Your task to perform on an android device: Open calendar and show me the second week of next month Image 0: 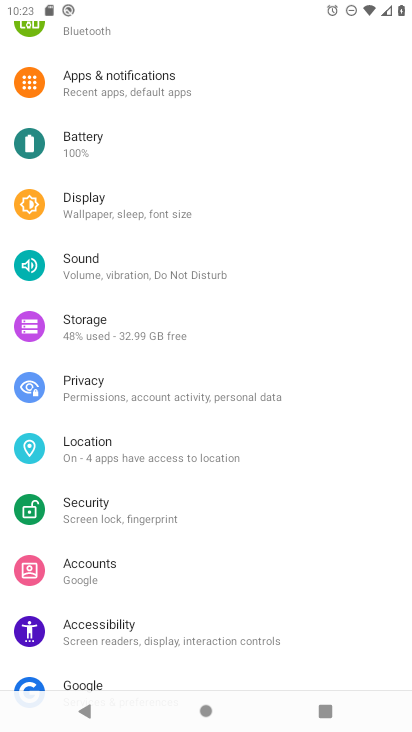
Step 0: press home button
Your task to perform on an android device: Open calendar and show me the second week of next month Image 1: 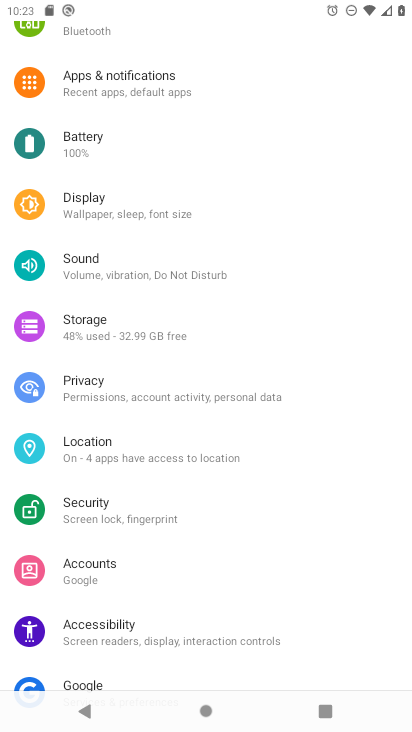
Step 1: press home button
Your task to perform on an android device: Open calendar and show me the second week of next month Image 2: 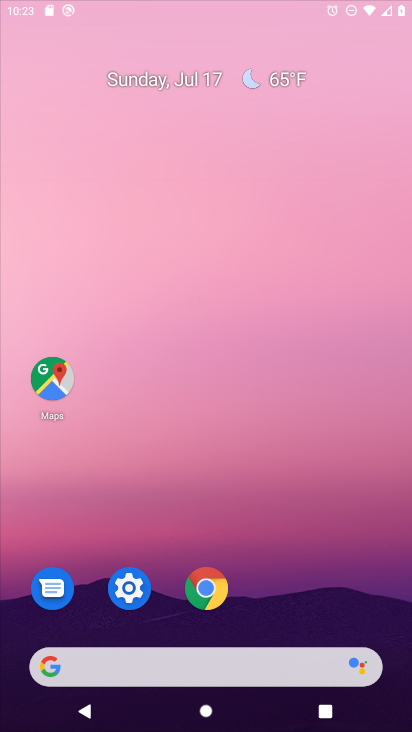
Step 2: press home button
Your task to perform on an android device: Open calendar and show me the second week of next month Image 3: 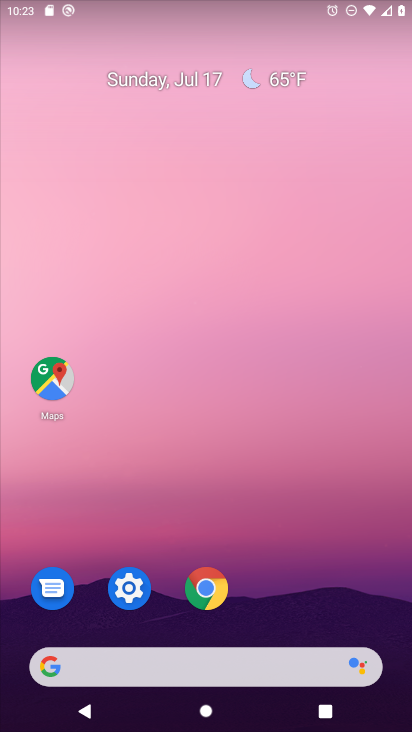
Step 3: drag from (302, 647) to (208, 209)
Your task to perform on an android device: Open calendar and show me the second week of next month Image 4: 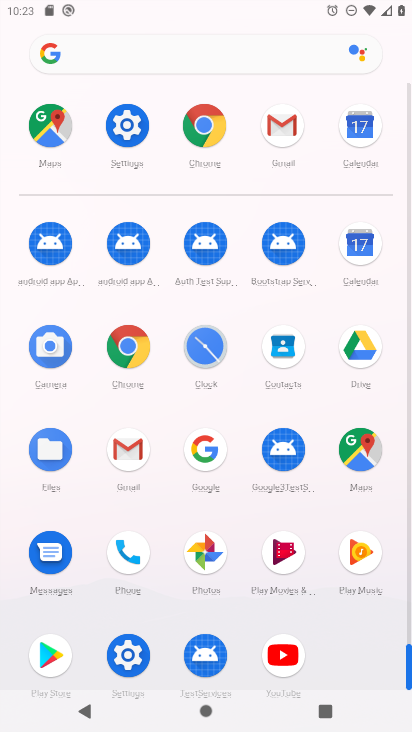
Step 4: click (356, 248)
Your task to perform on an android device: Open calendar and show me the second week of next month Image 5: 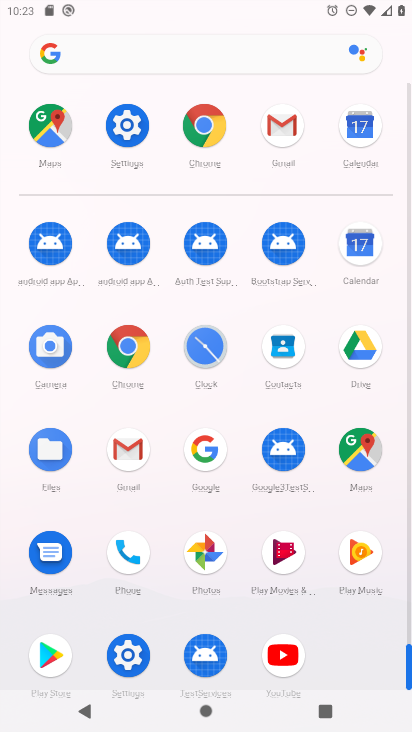
Step 5: click (357, 248)
Your task to perform on an android device: Open calendar and show me the second week of next month Image 6: 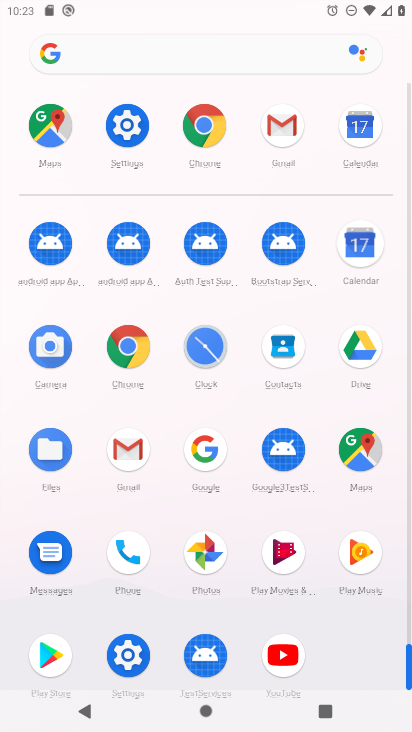
Step 6: click (357, 248)
Your task to perform on an android device: Open calendar and show me the second week of next month Image 7: 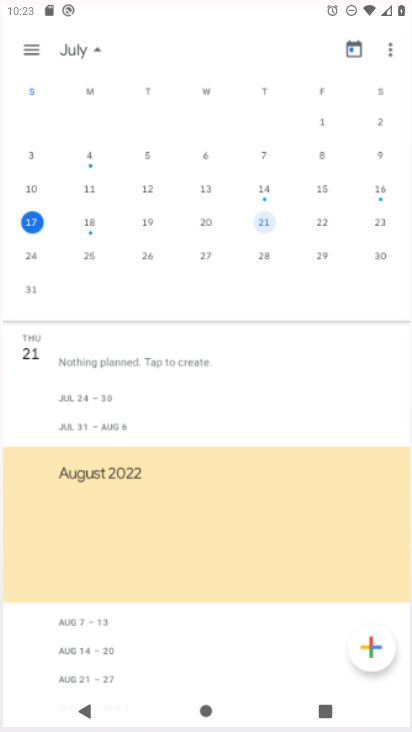
Step 7: click (357, 248)
Your task to perform on an android device: Open calendar and show me the second week of next month Image 8: 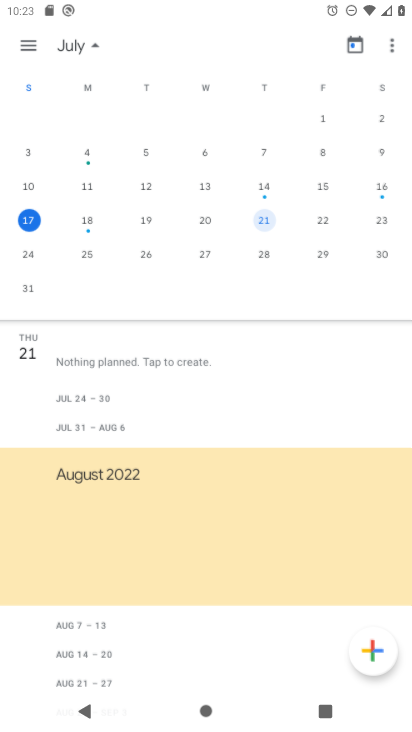
Step 8: click (358, 248)
Your task to perform on an android device: Open calendar and show me the second week of next month Image 9: 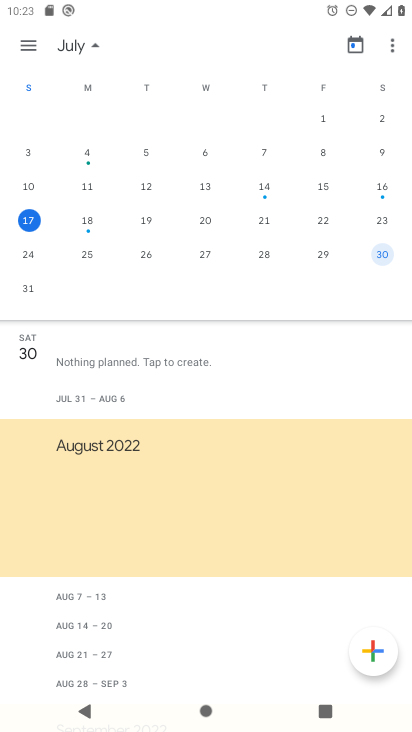
Step 9: click (361, 246)
Your task to perform on an android device: Open calendar and show me the second week of next month Image 10: 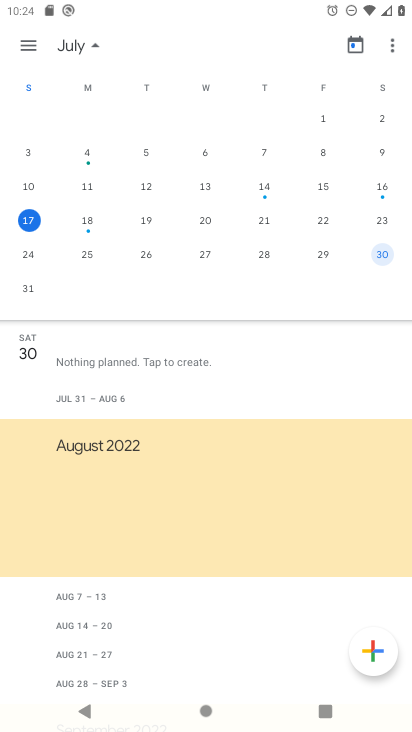
Step 10: drag from (357, 193) to (5, 119)
Your task to perform on an android device: Open calendar and show me the second week of next month Image 11: 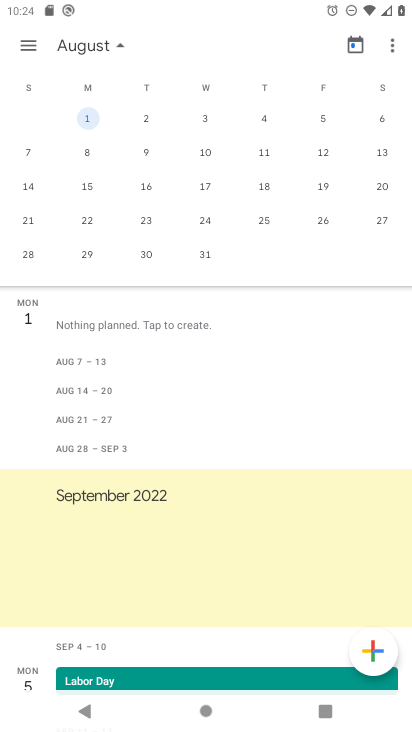
Step 11: click (206, 154)
Your task to perform on an android device: Open calendar and show me the second week of next month Image 12: 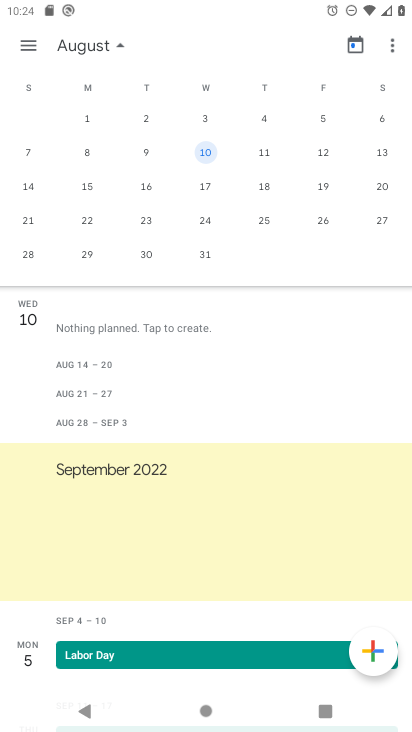
Step 12: click (206, 154)
Your task to perform on an android device: Open calendar and show me the second week of next month Image 13: 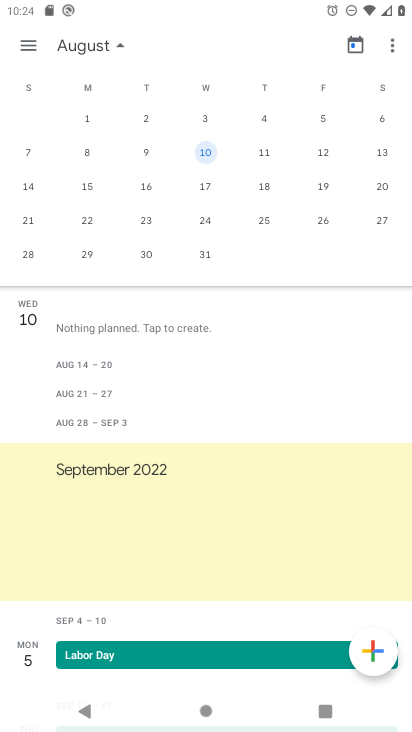
Step 13: click (206, 154)
Your task to perform on an android device: Open calendar and show me the second week of next month Image 14: 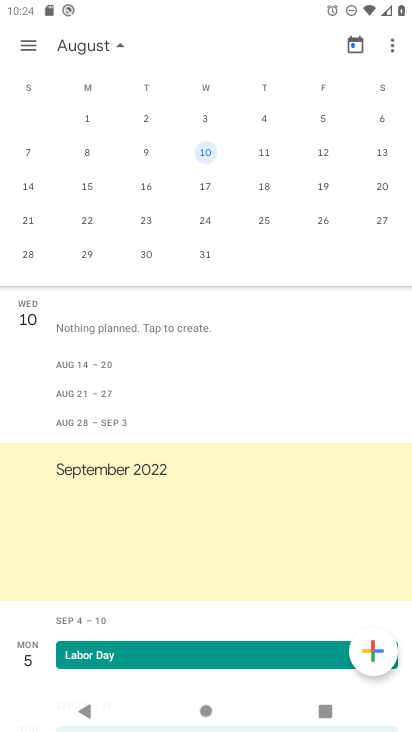
Step 14: click (206, 154)
Your task to perform on an android device: Open calendar and show me the second week of next month Image 15: 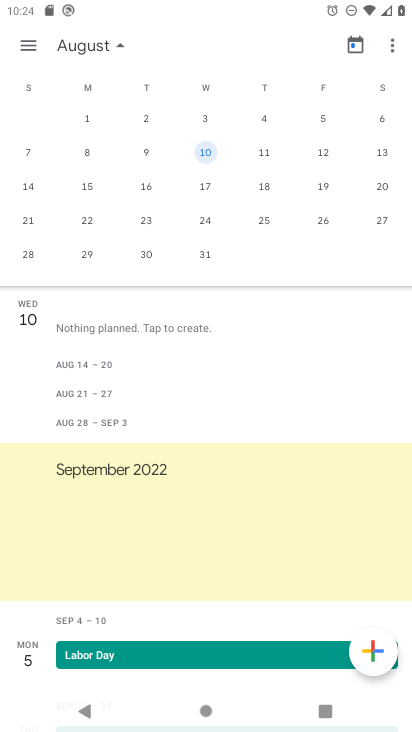
Step 15: click (206, 154)
Your task to perform on an android device: Open calendar and show me the second week of next month Image 16: 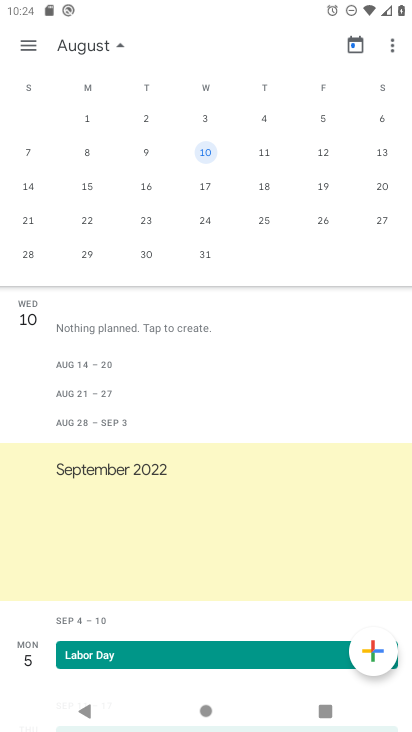
Step 16: task complete